Your task to perform on an android device: Open CNN.com Image 0: 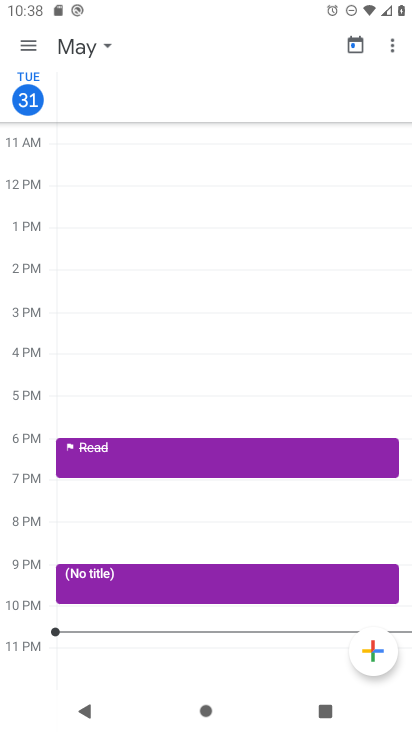
Step 0: press home button
Your task to perform on an android device: Open CNN.com Image 1: 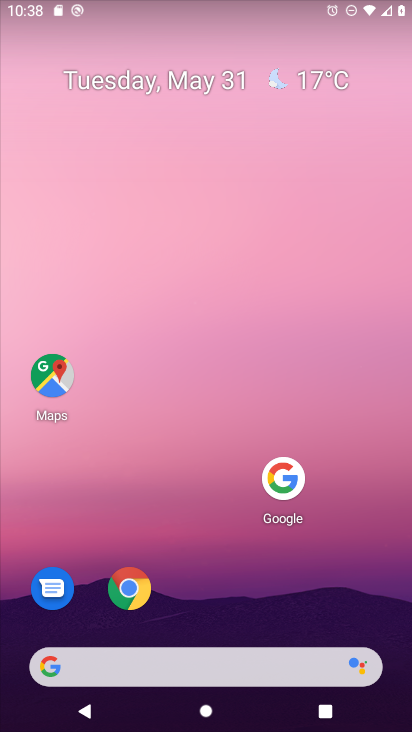
Step 1: click (139, 591)
Your task to perform on an android device: Open CNN.com Image 2: 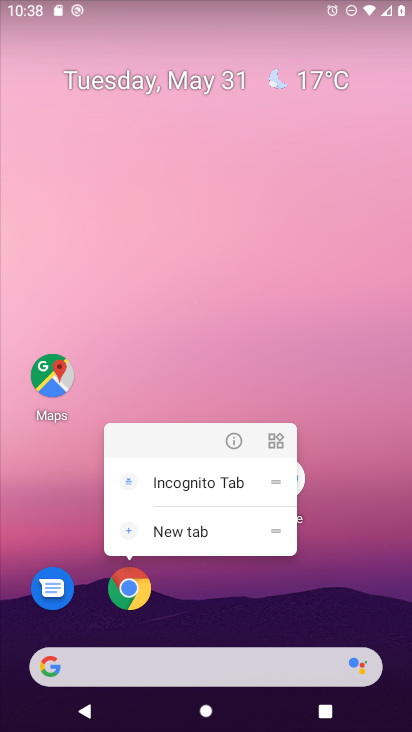
Step 2: click (131, 592)
Your task to perform on an android device: Open CNN.com Image 3: 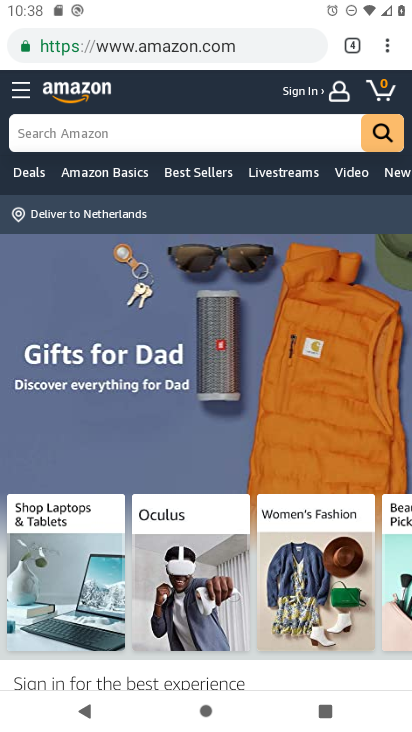
Step 3: drag from (385, 50) to (269, 85)
Your task to perform on an android device: Open CNN.com Image 4: 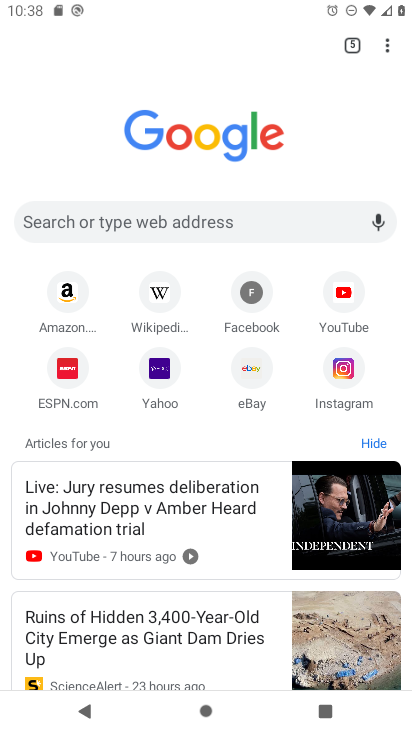
Step 4: click (119, 218)
Your task to perform on an android device: Open CNN.com Image 5: 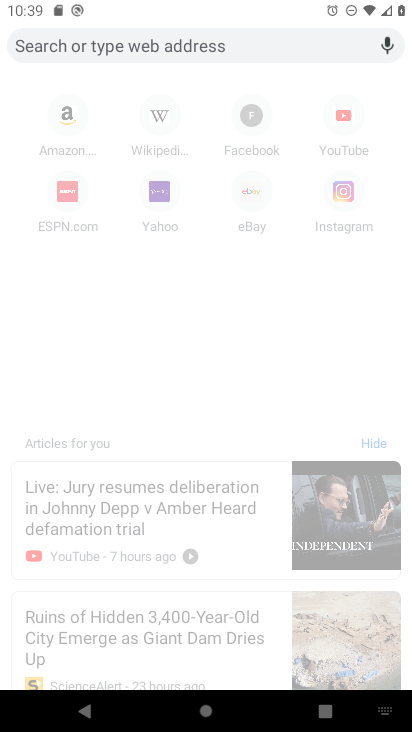
Step 5: type "cnn.com"
Your task to perform on an android device: Open CNN.com Image 6: 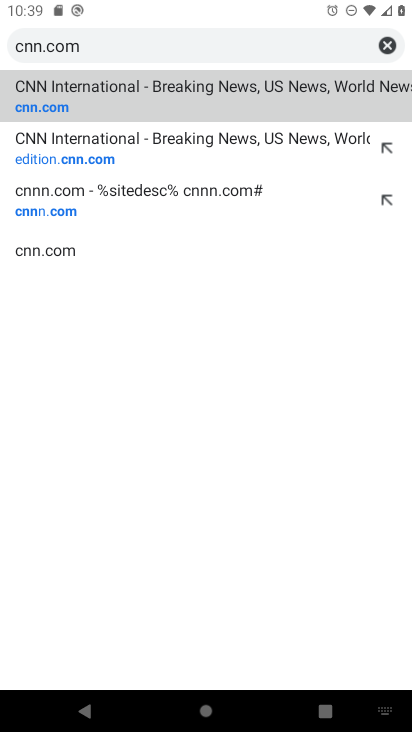
Step 6: click (297, 102)
Your task to perform on an android device: Open CNN.com Image 7: 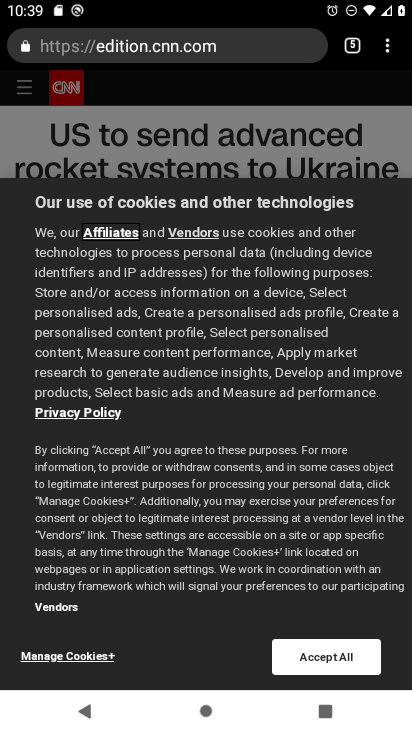
Step 7: click (334, 653)
Your task to perform on an android device: Open CNN.com Image 8: 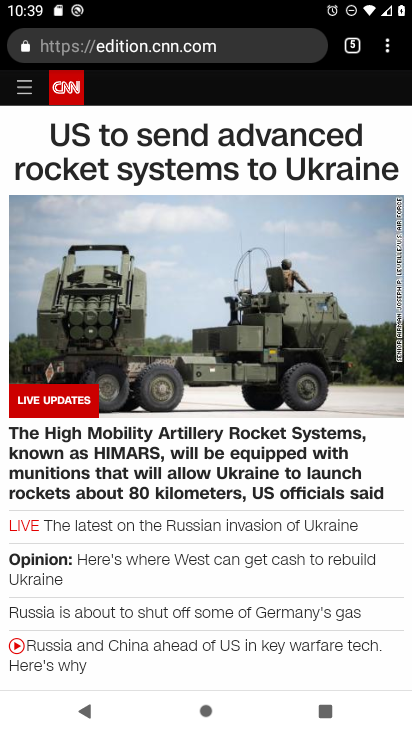
Step 8: task complete